Your task to perform on an android device: turn off data saver in the chrome app Image 0: 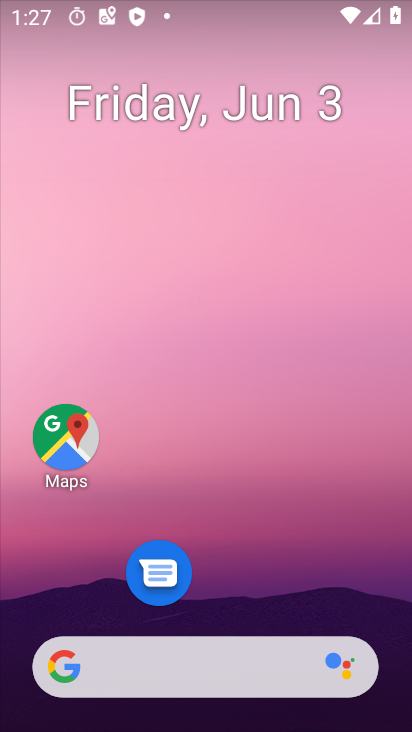
Step 0: drag from (266, 662) to (281, 2)
Your task to perform on an android device: turn off data saver in the chrome app Image 1: 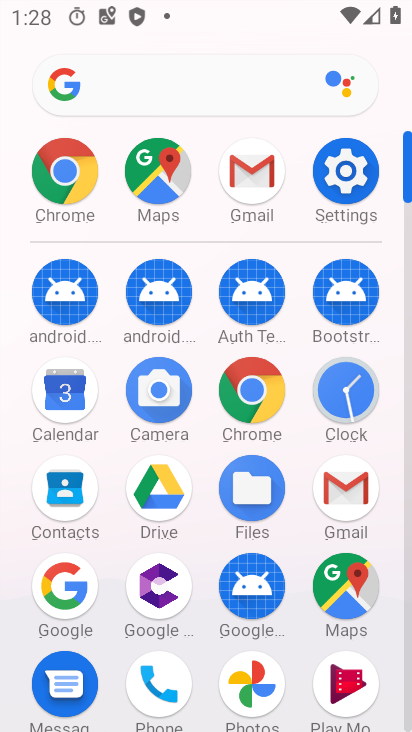
Step 1: task complete